Your task to perform on an android device: Open Youtube and go to the subscriptions tab Image 0: 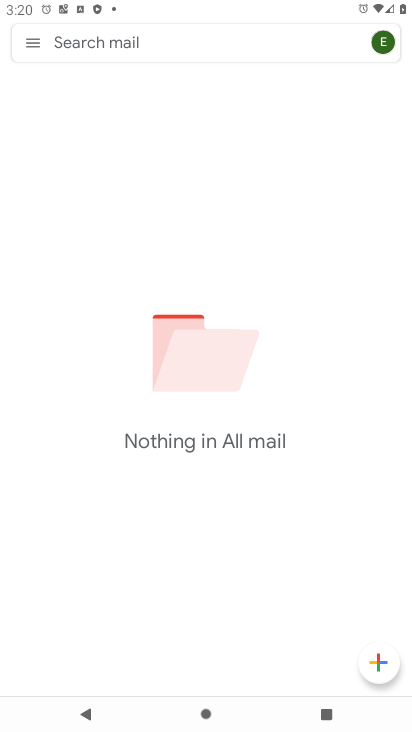
Step 0: press home button
Your task to perform on an android device: Open Youtube and go to the subscriptions tab Image 1: 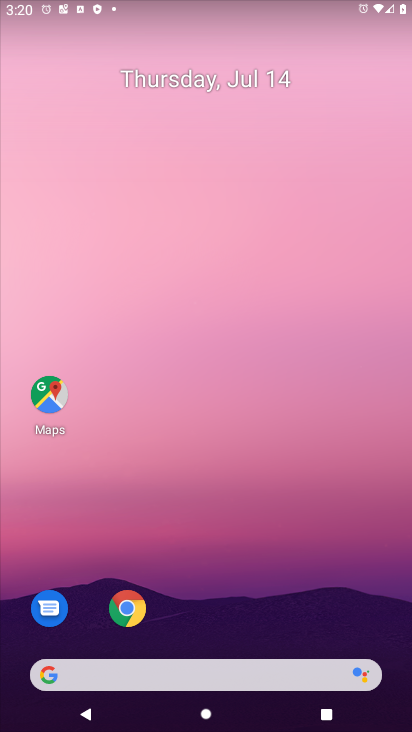
Step 1: drag from (368, 626) to (335, 81)
Your task to perform on an android device: Open Youtube and go to the subscriptions tab Image 2: 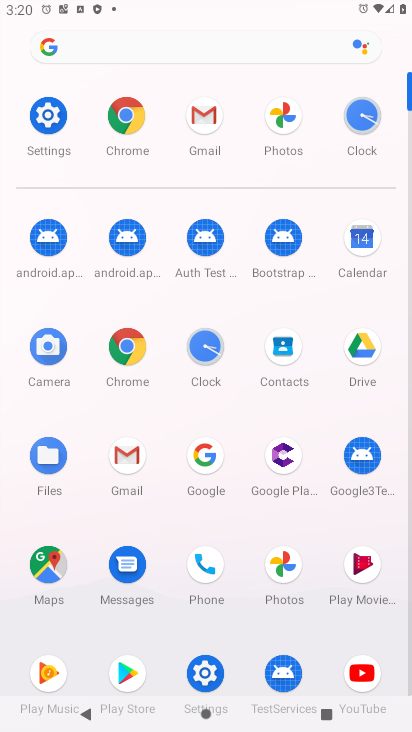
Step 2: click (359, 673)
Your task to perform on an android device: Open Youtube and go to the subscriptions tab Image 3: 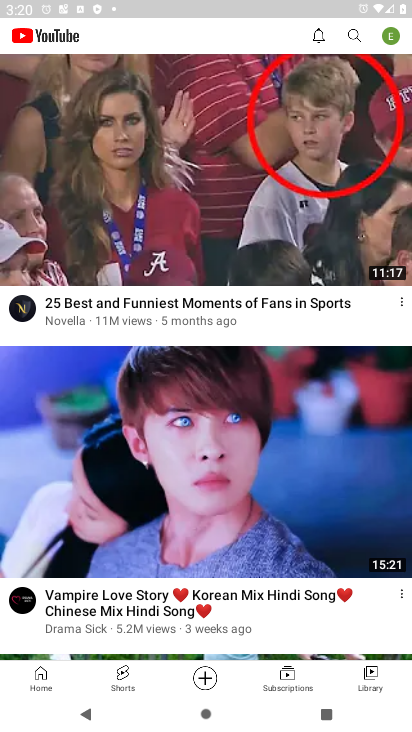
Step 3: click (287, 675)
Your task to perform on an android device: Open Youtube and go to the subscriptions tab Image 4: 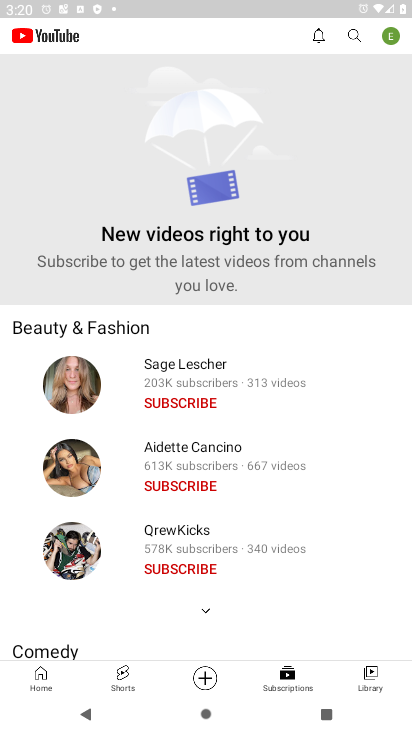
Step 4: task complete